Your task to perform on an android device: turn off location history Image 0: 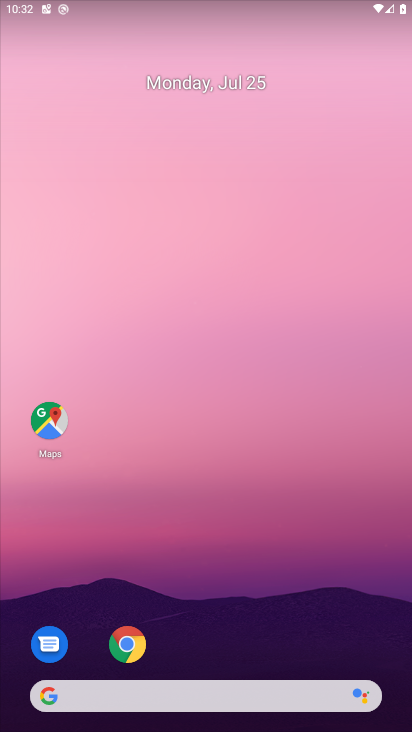
Step 0: press home button
Your task to perform on an android device: turn off location history Image 1: 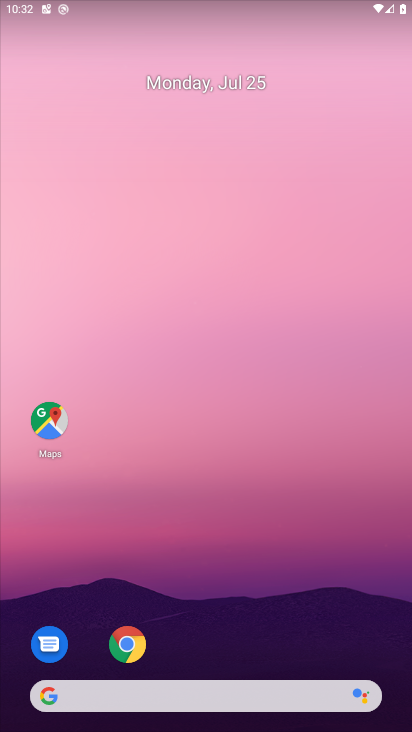
Step 1: drag from (267, 730) to (208, 228)
Your task to perform on an android device: turn off location history Image 2: 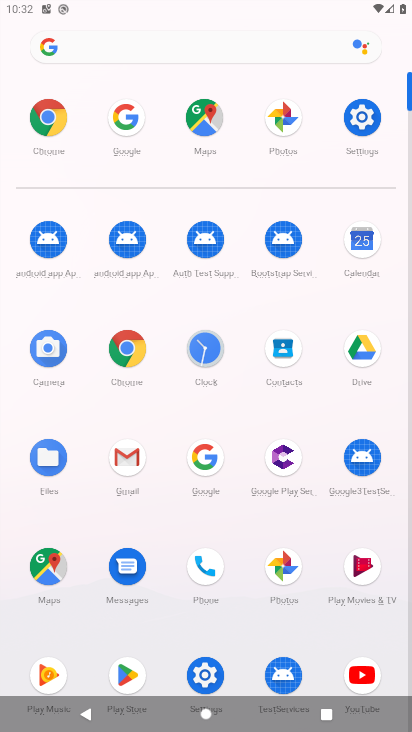
Step 2: click (216, 131)
Your task to perform on an android device: turn off location history Image 3: 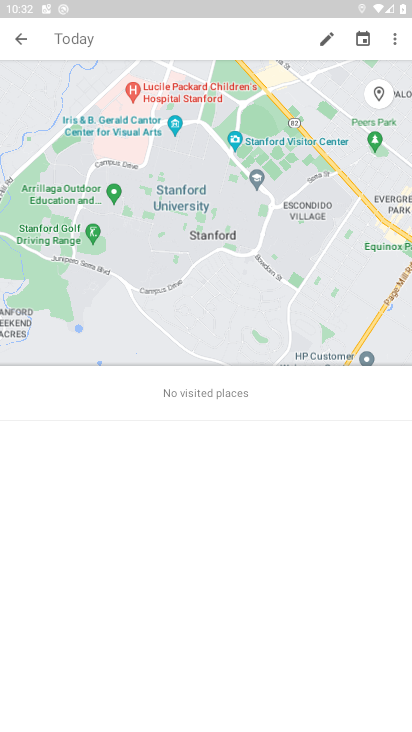
Step 3: click (402, 44)
Your task to perform on an android device: turn off location history Image 4: 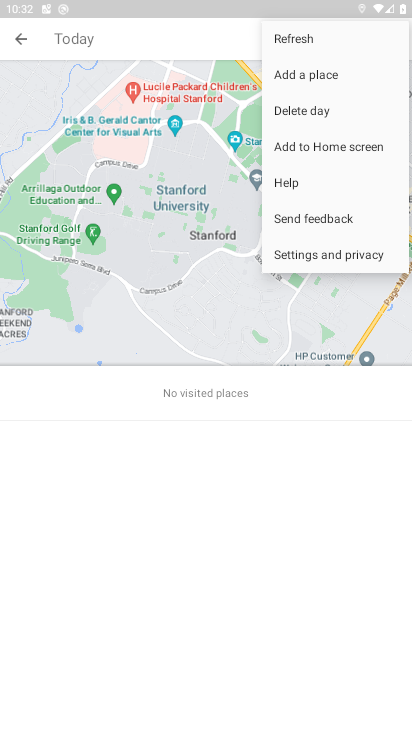
Step 4: click (381, 247)
Your task to perform on an android device: turn off location history Image 5: 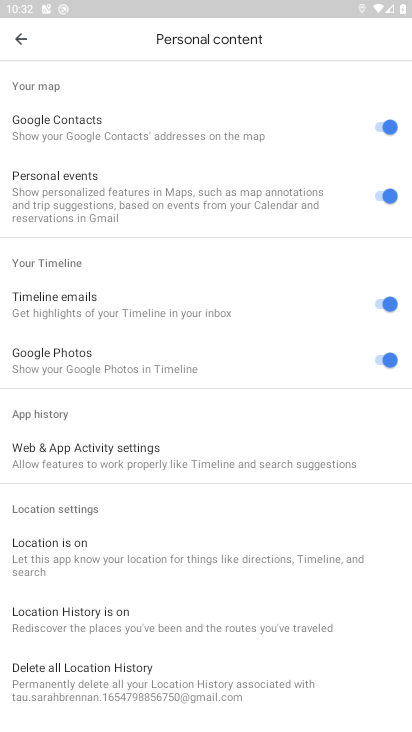
Step 5: click (80, 625)
Your task to perform on an android device: turn off location history Image 6: 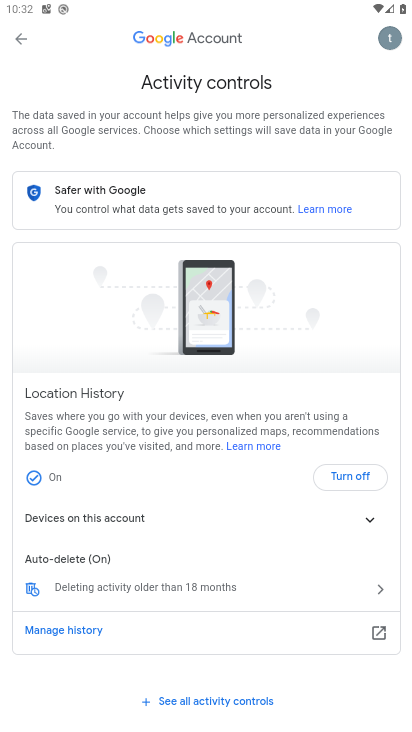
Step 6: click (365, 479)
Your task to perform on an android device: turn off location history Image 7: 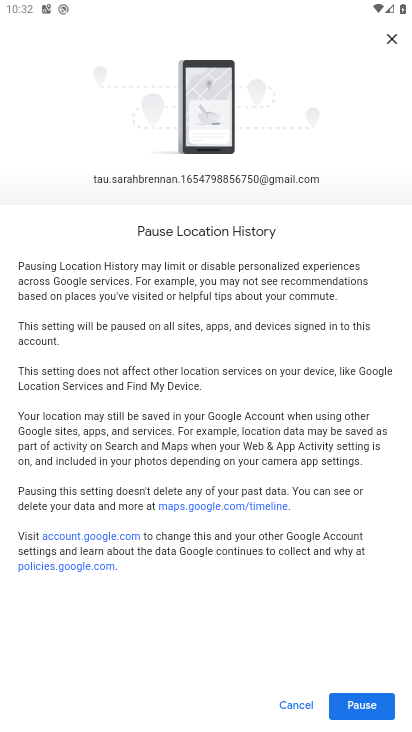
Step 7: click (386, 707)
Your task to perform on an android device: turn off location history Image 8: 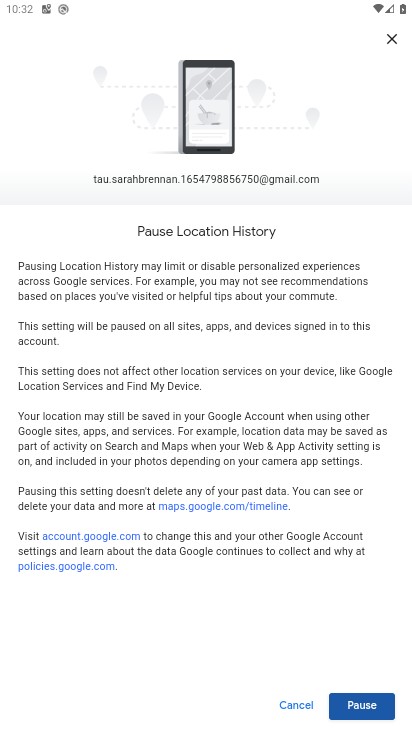
Step 8: click (386, 707)
Your task to perform on an android device: turn off location history Image 9: 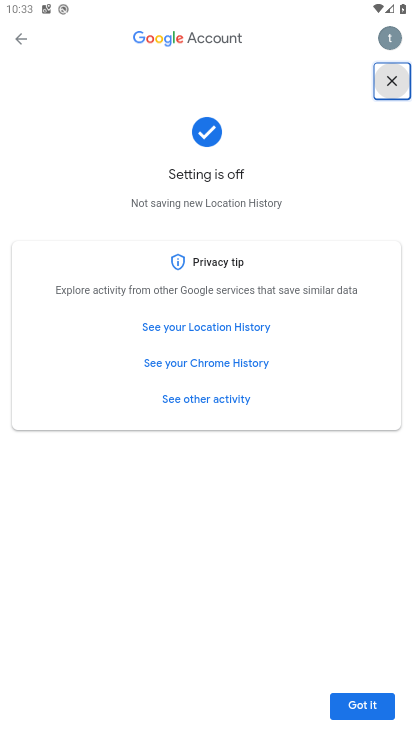
Step 9: click (385, 705)
Your task to perform on an android device: turn off location history Image 10: 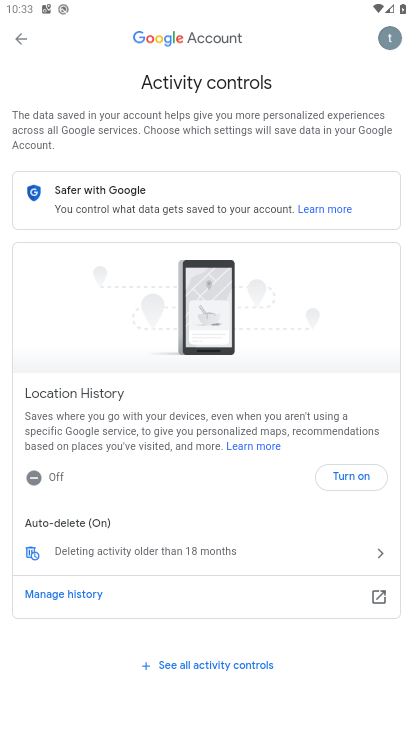
Step 10: task complete